Your task to perform on an android device: Search for "macbook pro 15 inch" on amazon, select the first entry, add it to the cart, then select checkout. Image 0: 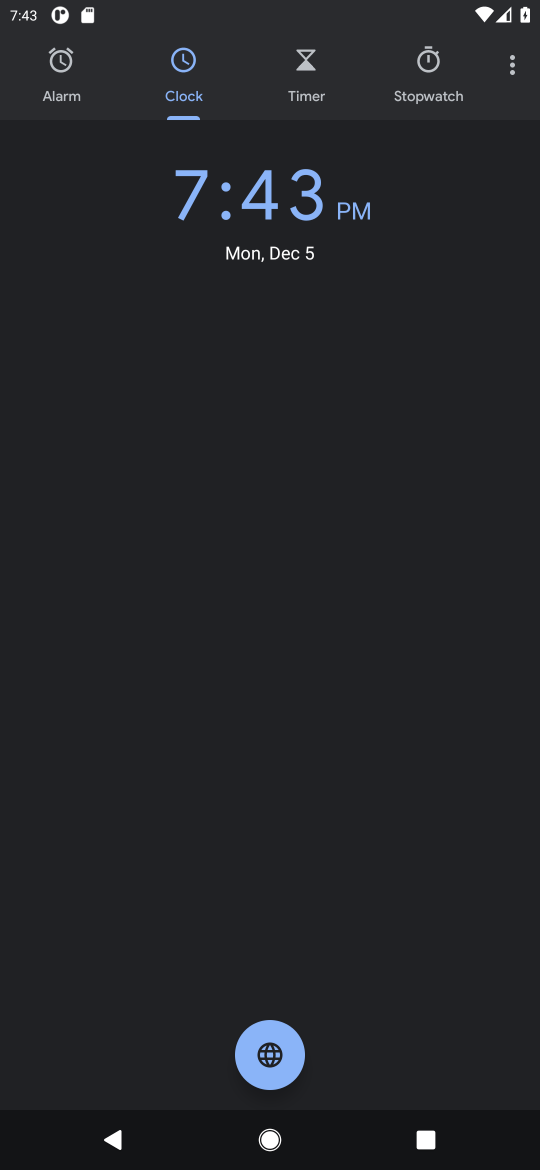
Step 0: press home button
Your task to perform on an android device: Search for "macbook pro 15 inch" on amazon, select the first entry, add it to the cart, then select checkout. Image 1: 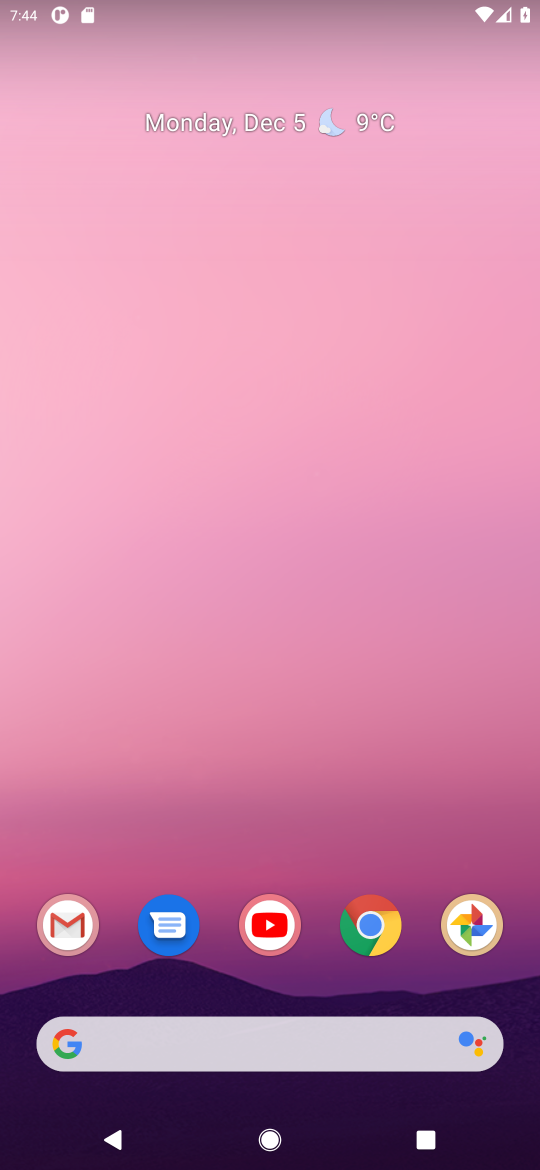
Step 1: click (368, 925)
Your task to perform on an android device: Search for "macbook pro 15 inch" on amazon, select the first entry, add it to the cart, then select checkout. Image 2: 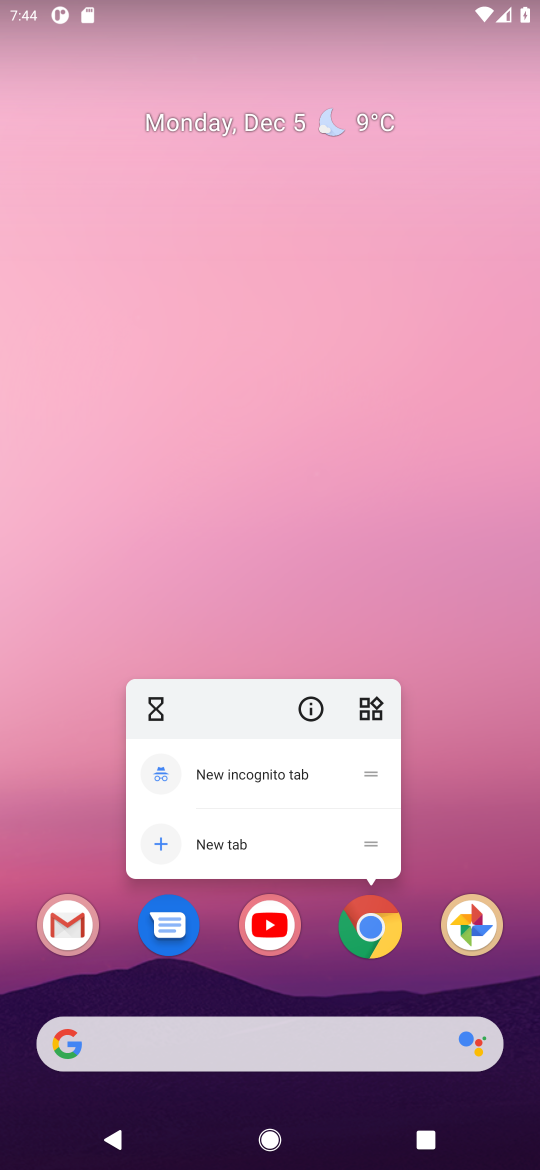
Step 2: click (367, 931)
Your task to perform on an android device: Search for "macbook pro 15 inch" on amazon, select the first entry, add it to the cart, then select checkout. Image 3: 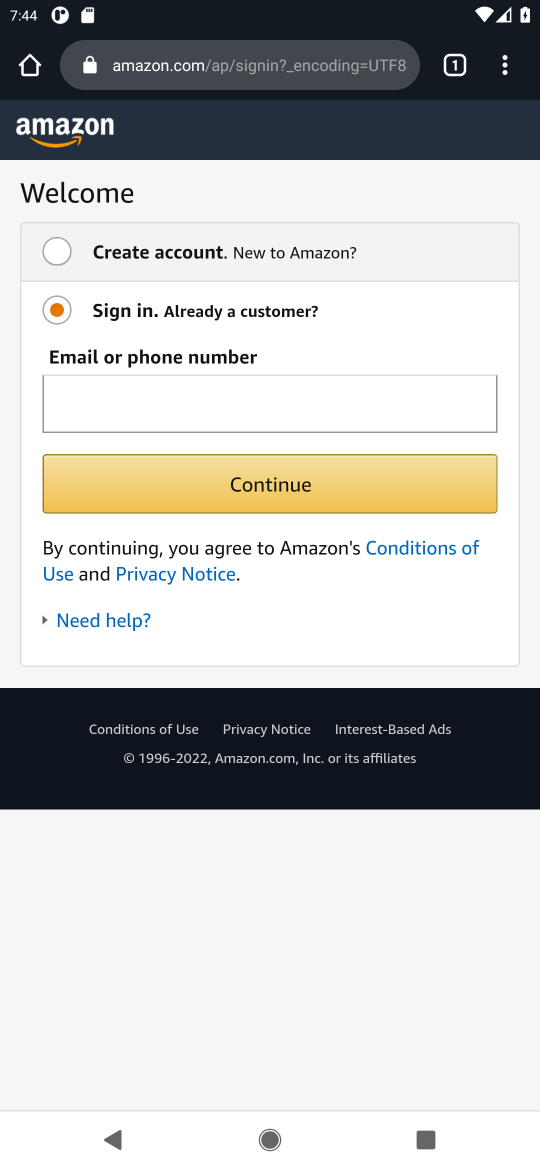
Step 3: press back button
Your task to perform on an android device: Search for "macbook pro 15 inch" on amazon, select the first entry, add it to the cart, then select checkout. Image 4: 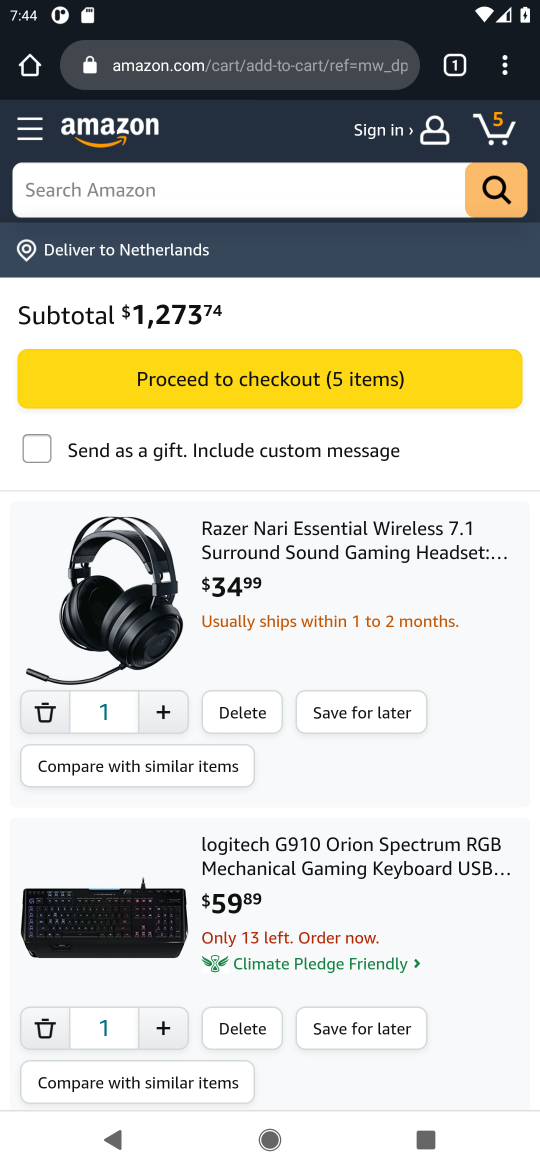
Step 4: click (117, 190)
Your task to perform on an android device: Search for "macbook pro 15 inch" on amazon, select the first entry, add it to the cart, then select checkout. Image 5: 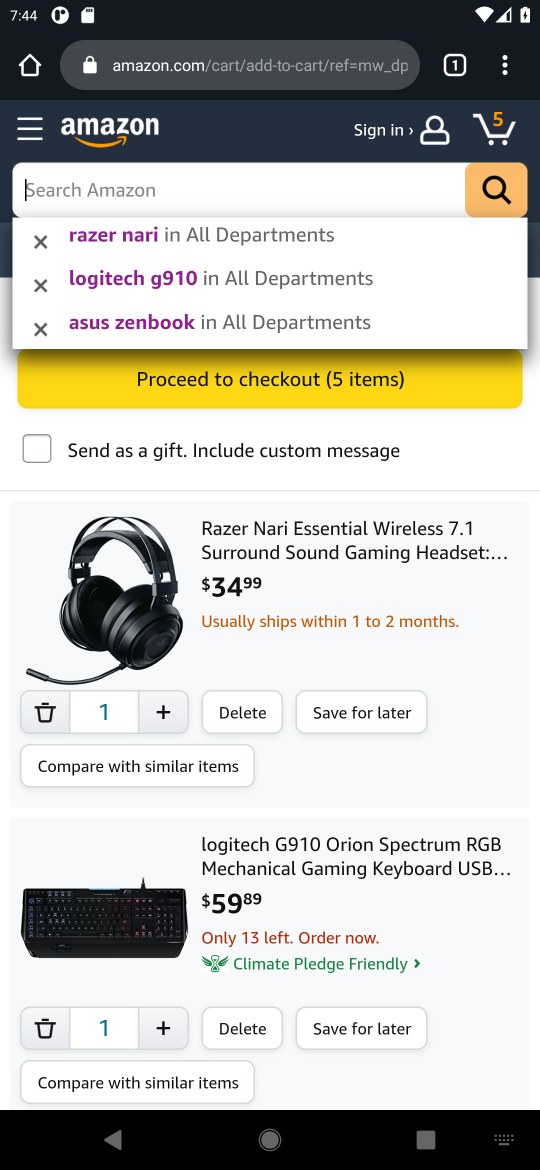
Step 5: type "macbook pro 15 inch"
Your task to perform on an android device: Search for "macbook pro 15 inch" on amazon, select the first entry, add it to the cart, then select checkout. Image 6: 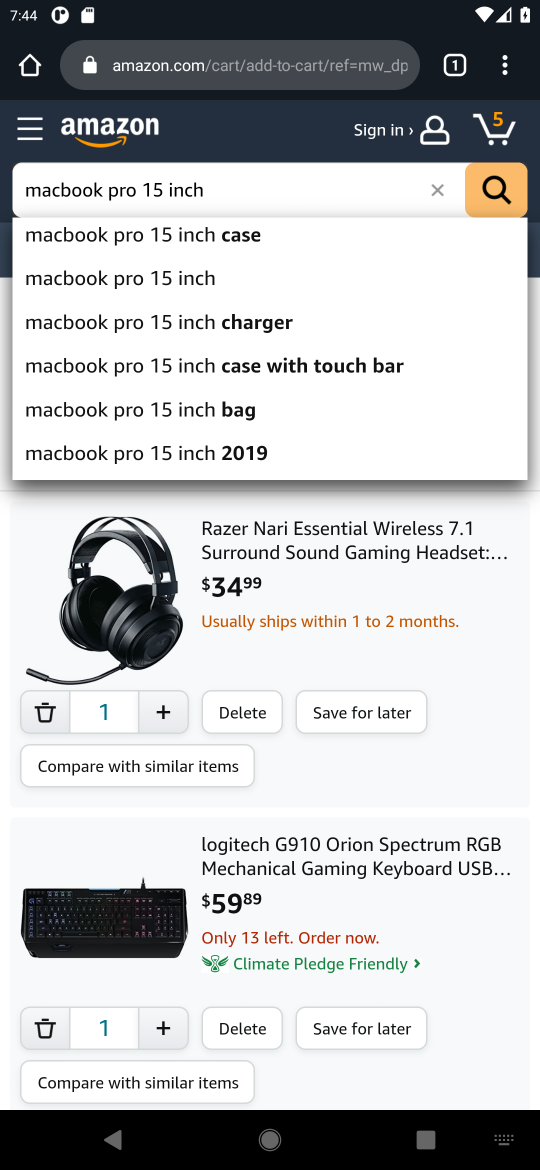
Step 6: click (202, 279)
Your task to perform on an android device: Search for "macbook pro 15 inch" on amazon, select the first entry, add it to the cart, then select checkout. Image 7: 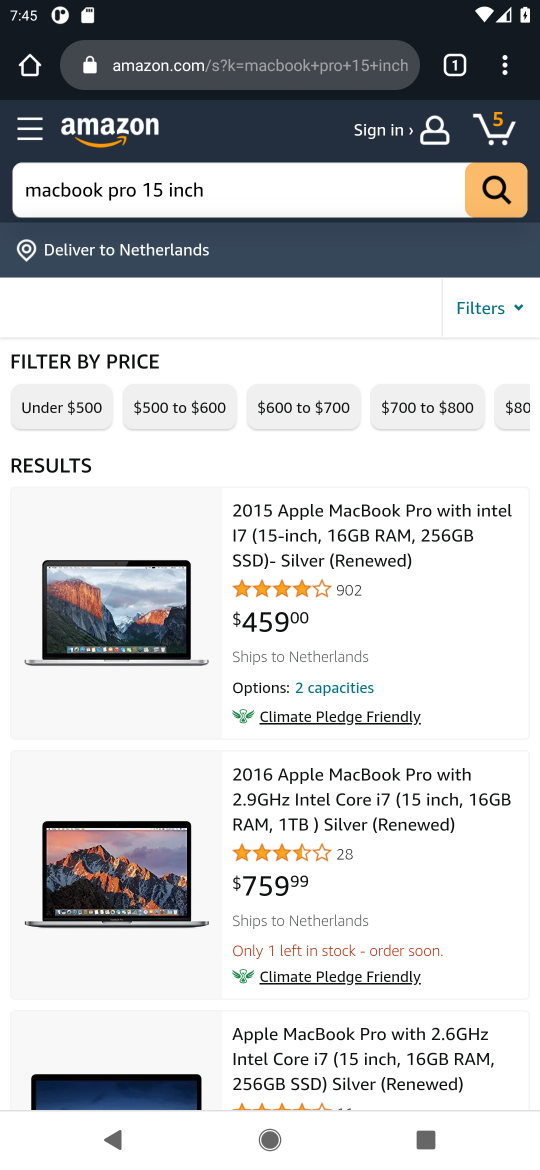
Step 7: click (343, 569)
Your task to perform on an android device: Search for "macbook pro 15 inch" on amazon, select the first entry, add it to the cart, then select checkout. Image 8: 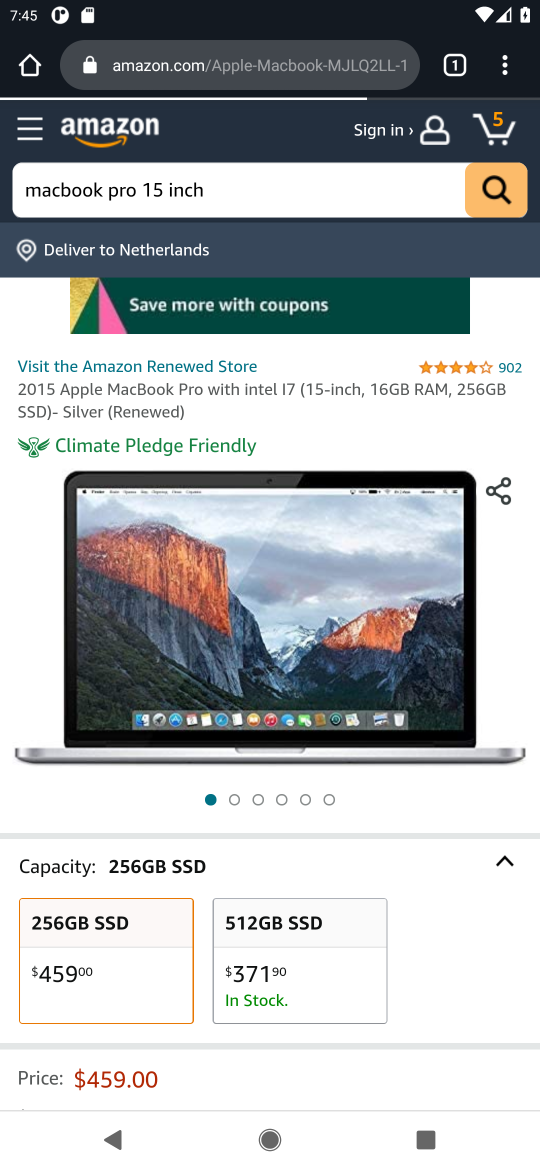
Step 8: drag from (402, 776) to (393, 299)
Your task to perform on an android device: Search for "macbook pro 15 inch" on amazon, select the first entry, add it to the cart, then select checkout. Image 9: 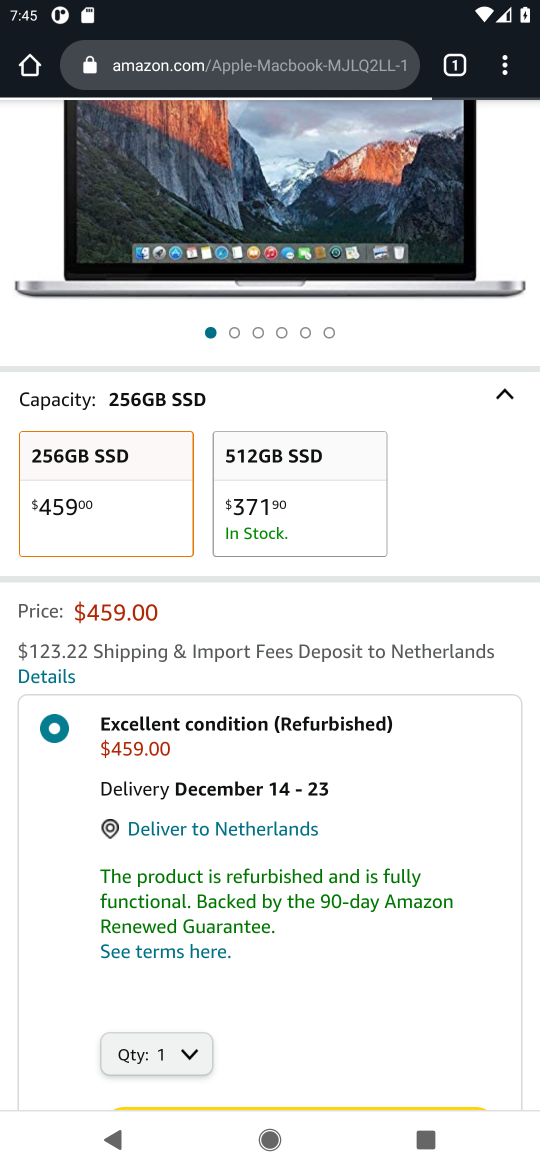
Step 9: drag from (400, 826) to (408, 332)
Your task to perform on an android device: Search for "macbook pro 15 inch" on amazon, select the first entry, add it to the cart, then select checkout. Image 10: 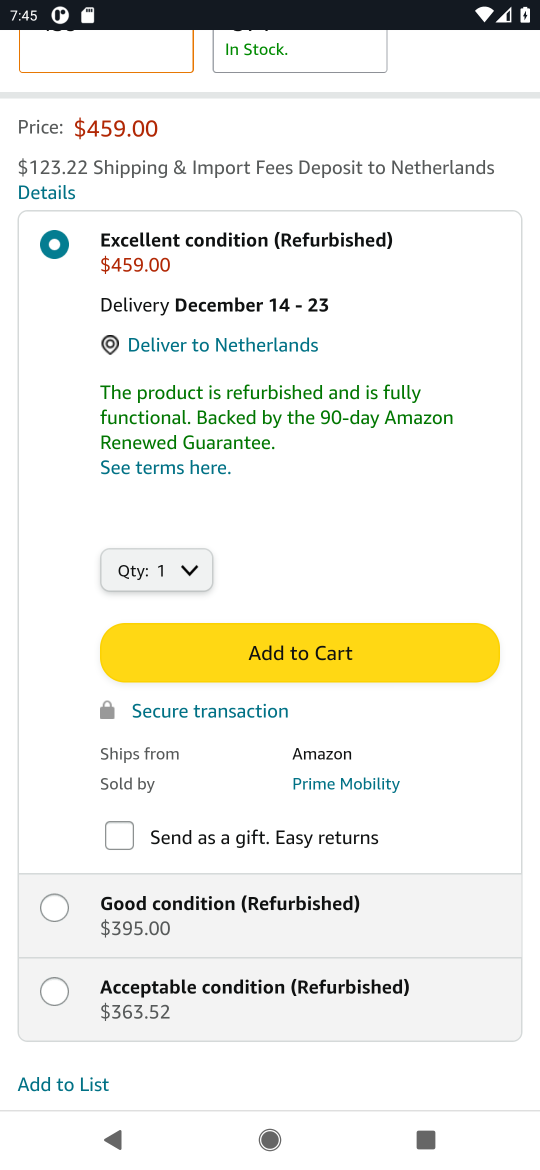
Step 10: click (315, 644)
Your task to perform on an android device: Search for "macbook pro 15 inch" on amazon, select the first entry, add it to the cart, then select checkout. Image 11: 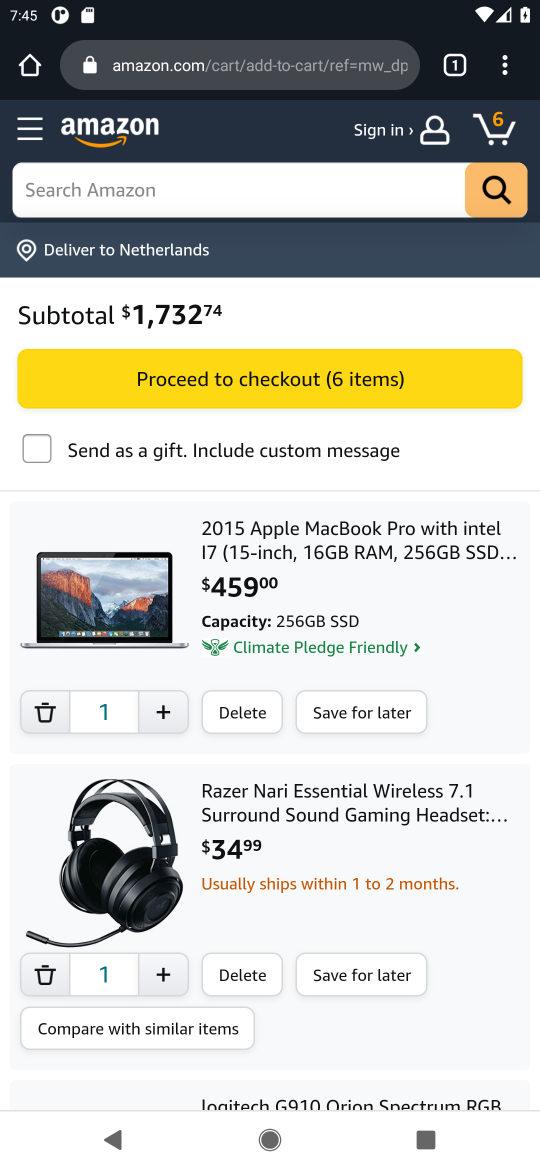
Step 11: click (248, 385)
Your task to perform on an android device: Search for "macbook pro 15 inch" on amazon, select the first entry, add it to the cart, then select checkout. Image 12: 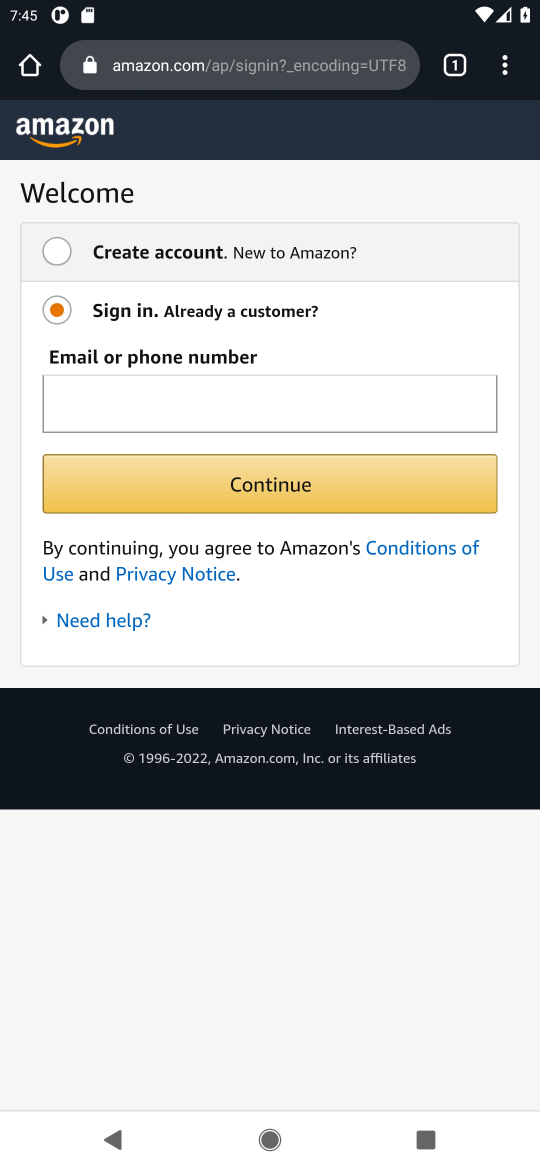
Step 12: task complete